Your task to perform on an android device: Go to ESPN.com Image 0: 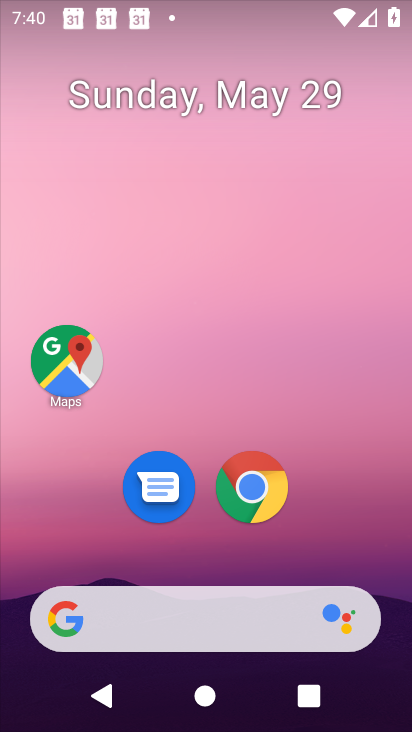
Step 0: drag from (263, 503) to (400, 40)
Your task to perform on an android device: Go to ESPN.com Image 1: 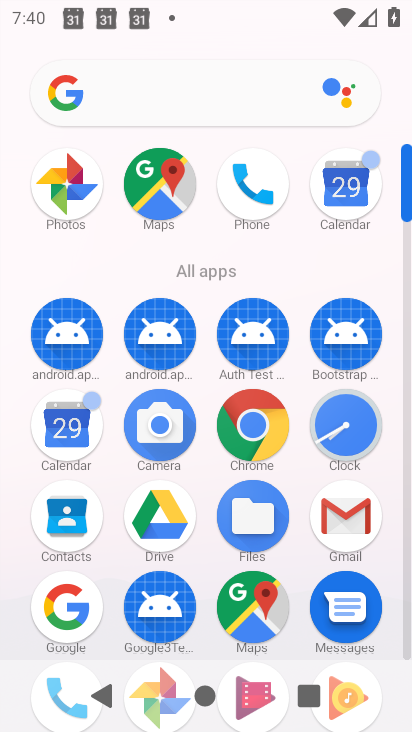
Step 1: drag from (302, 485) to (298, 155)
Your task to perform on an android device: Go to ESPN.com Image 2: 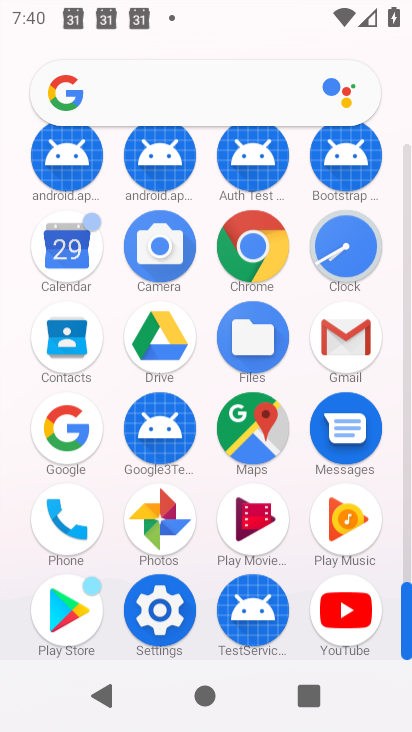
Step 2: drag from (244, 506) to (147, 321)
Your task to perform on an android device: Go to ESPN.com Image 3: 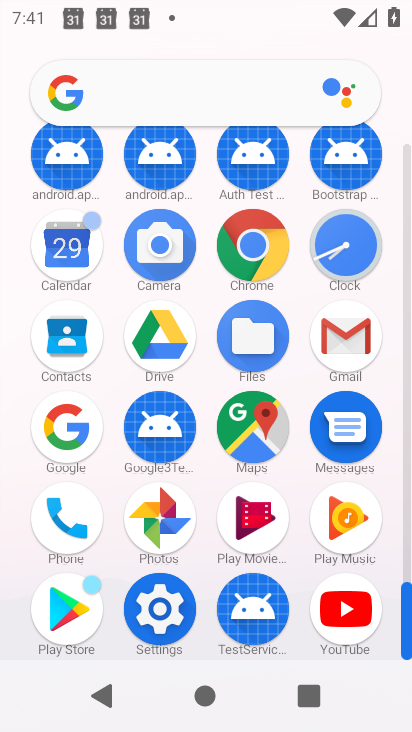
Step 3: click (263, 250)
Your task to perform on an android device: Go to ESPN.com Image 4: 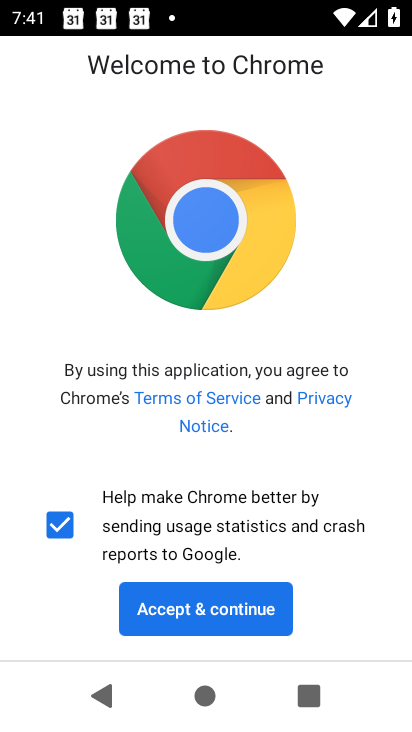
Step 4: drag from (410, 599) to (295, 602)
Your task to perform on an android device: Go to ESPN.com Image 5: 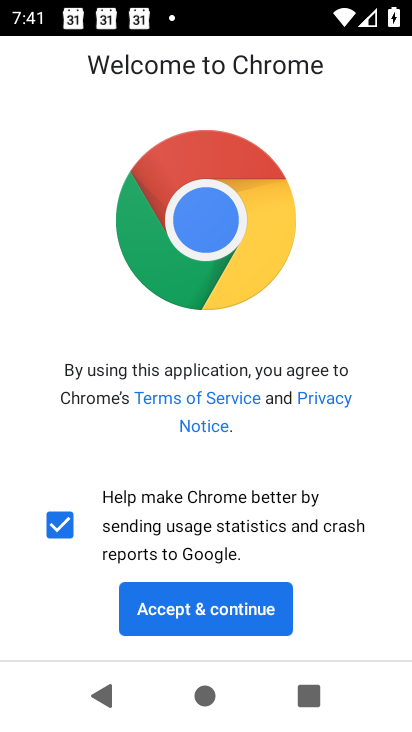
Step 5: click (209, 606)
Your task to perform on an android device: Go to ESPN.com Image 6: 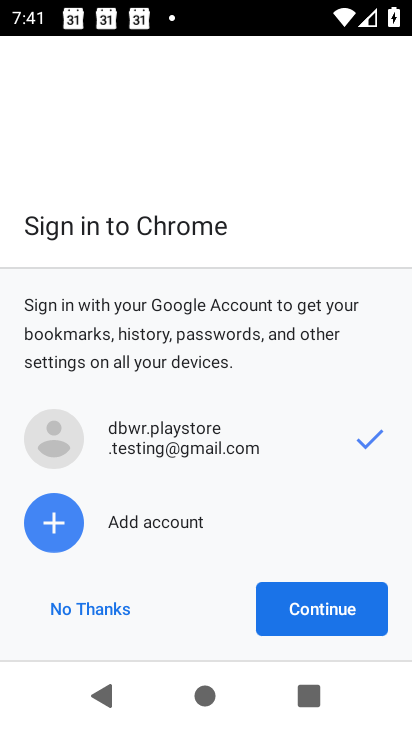
Step 6: click (319, 619)
Your task to perform on an android device: Go to ESPN.com Image 7: 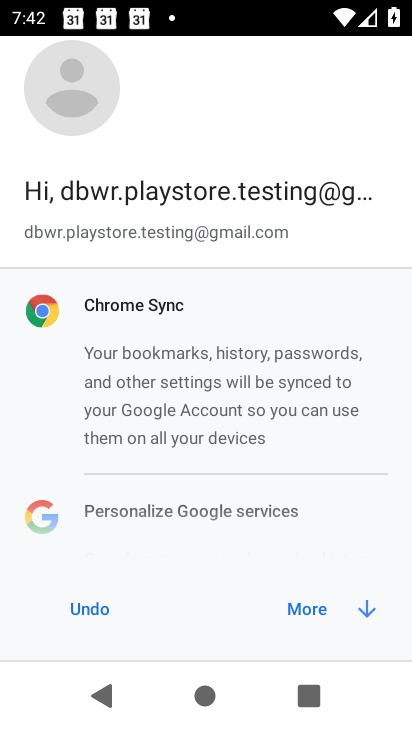
Step 7: click (291, 623)
Your task to perform on an android device: Go to ESPN.com Image 8: 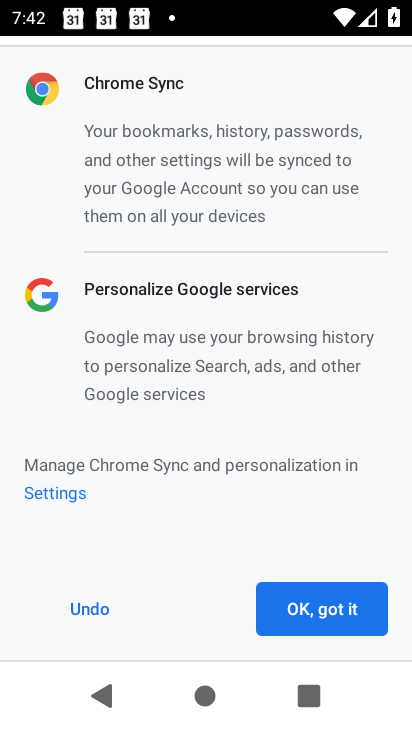
Step 8: click (291, 623)
Your task to perform on an android device: Go to ESPN.com Image 9: 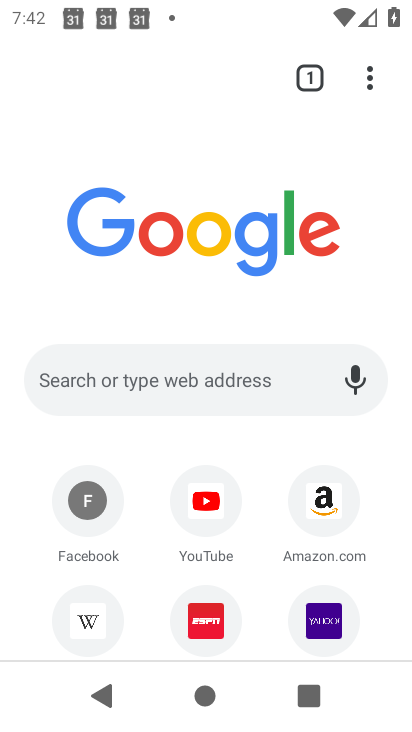
Step 9: drag from (259, 446) to (290, 318)
Your task to perform on an android device: Go to ESPN.com Image 10: 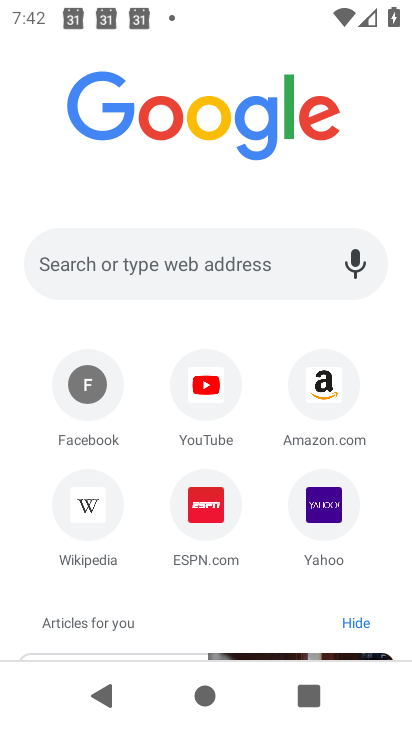
Step 10: click (217, 523)
Your task to perform on an android device: Go to ESPN.com Image 11: 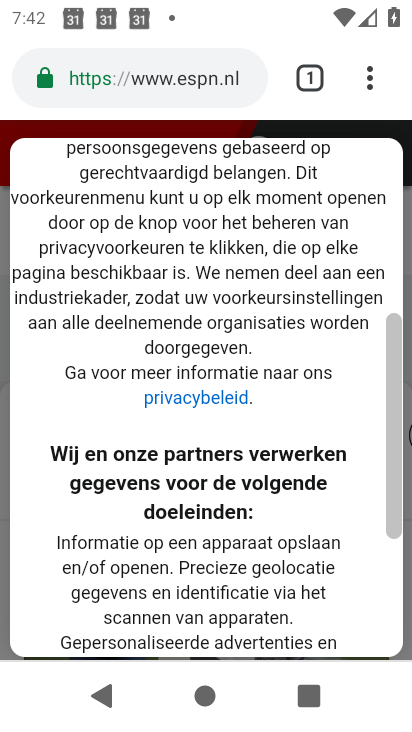
Step 11: task complete